Your task to perform on an android device: toggle notifications settings in the gmail app Image 0: 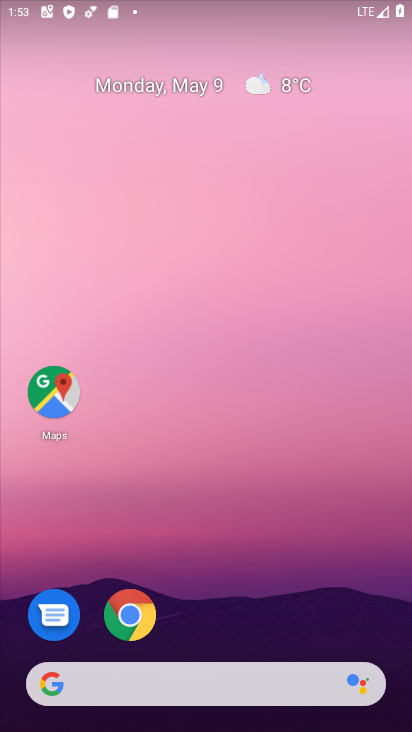
Step 0: drag from (372, 647) to (299, 195)
Your task to perform on an android device: toggle notifications settings in the gmail app Image 1: 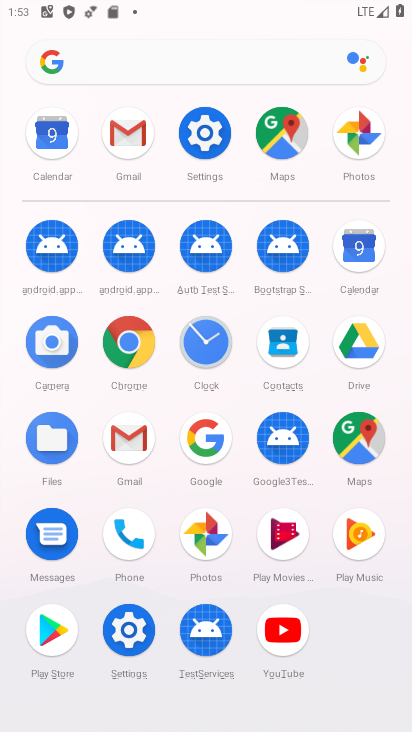
Step 1: click (126, 433)
Your task to perform on an android device: toggle notifications settings in the gmail app Image 2: 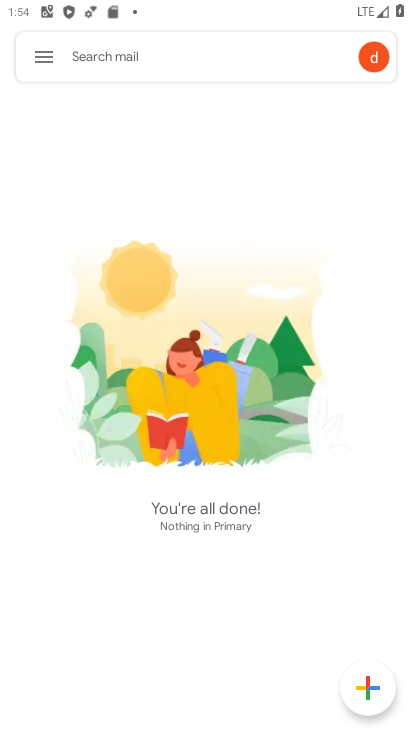
Step 2: click (45, 53)
Your task to perform on an android device: toggle notifications settings in the gmail app Image 3: 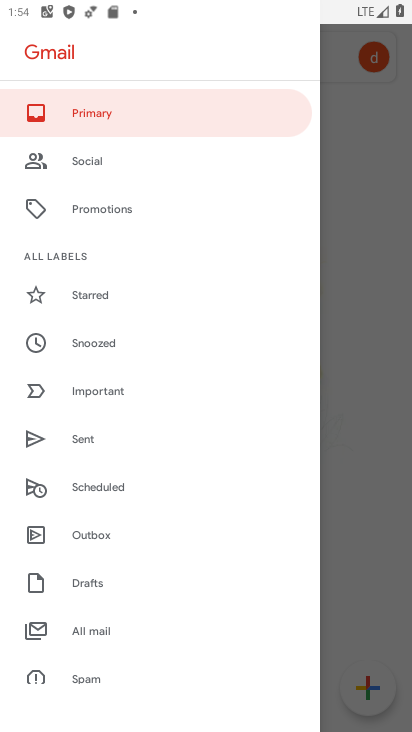
Step 3: drag from (107, 640) to (191, 155)
Your task to perform on an android device: toggle notifications settings in the gmail app Image 4: 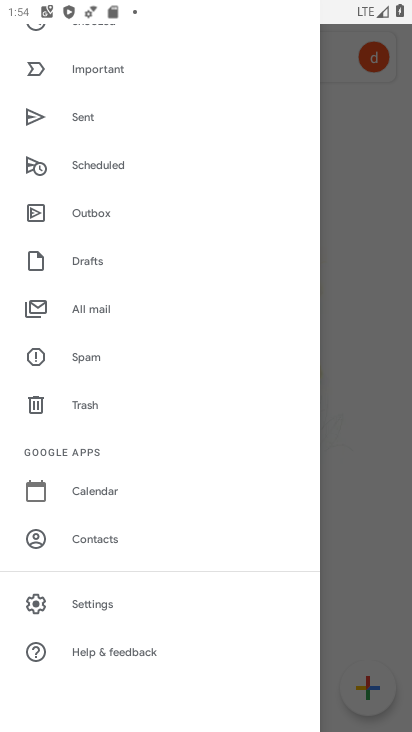
Step 4: click (94, 606)
Your task to perform on an android device: toggle notifications settings in the gmail app Image 5: 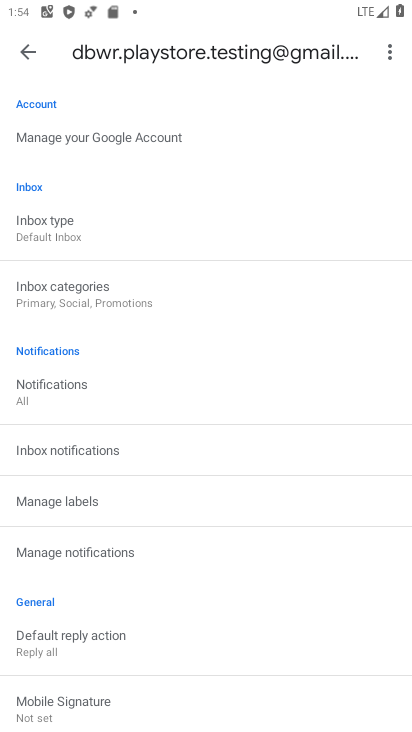
Step 5: click (86, 543)
Your task to perform on an android device: toggle notifications settings in the gmail app Image 6: 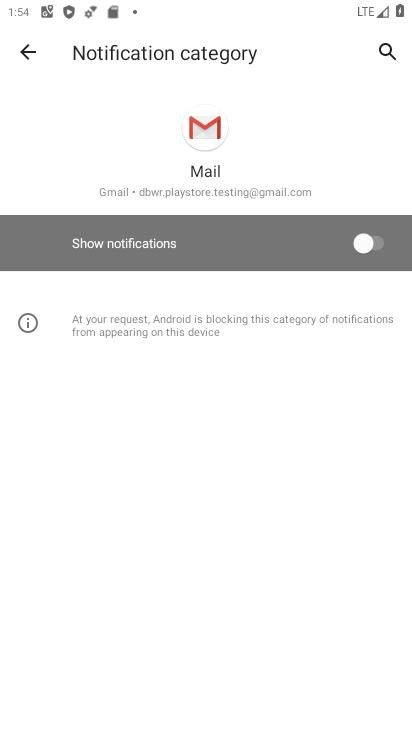
Step 6: click (378, 244)
Your task to perform on an android device: toggle notifications settings in the gmail app Image 7: 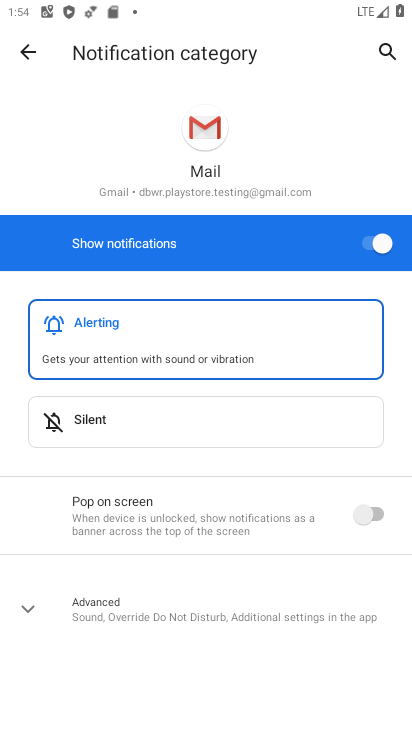
Step 7: task complete